Your task to perform on an android device: turn off wifi Image 0: 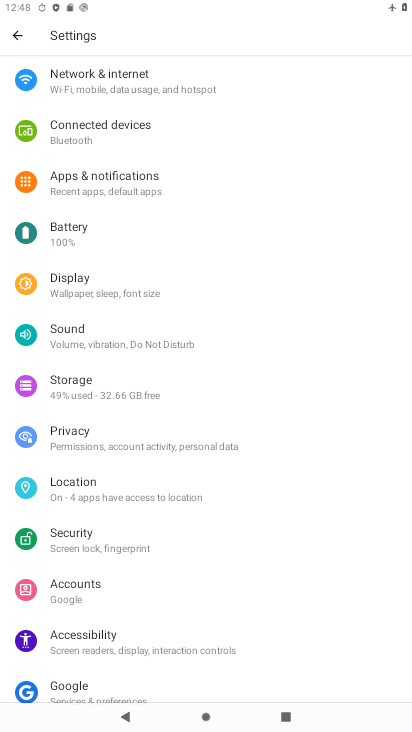
Step 0: press home button
Your task to perform on an android device: turn off wifi Image 1: 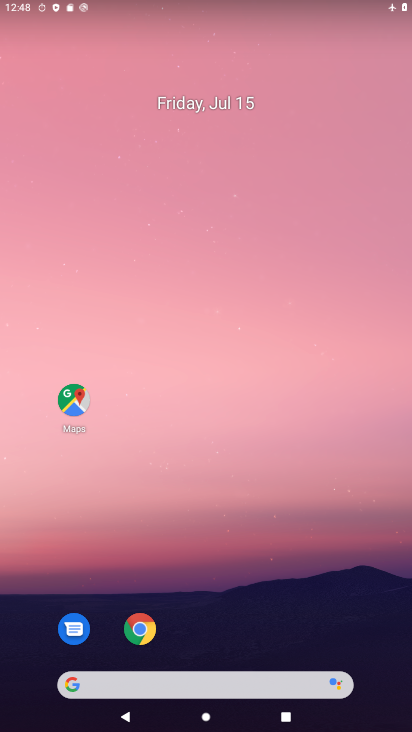
Step 1: drag from (218, 648) to (219, 98)
Your task to perform on an android device: turn off wifi Image 2: 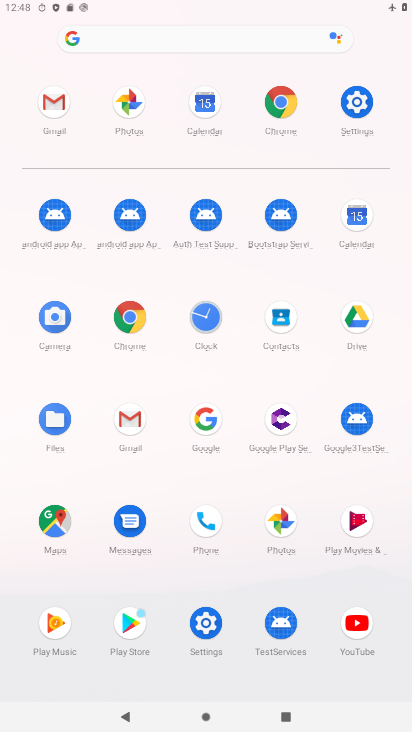
Step 2: click (204, 625)
Your task to perform on an android device: turn off wifi Image 3: 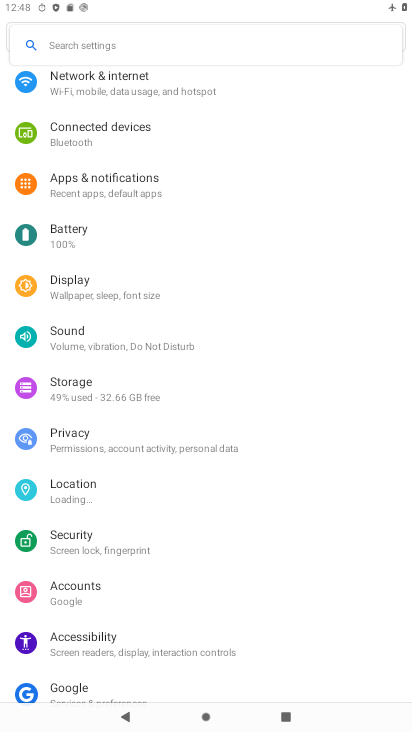
Step 3: click (113, 90)
Your task to perform on an android device: turn off wifi Image 4: 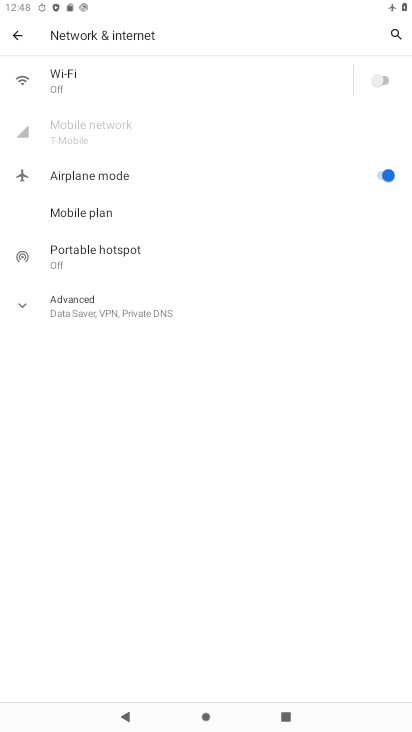
Step 4: task complete